Your task to perform on an android device: manage bookmarks in the chrome app Image 0: 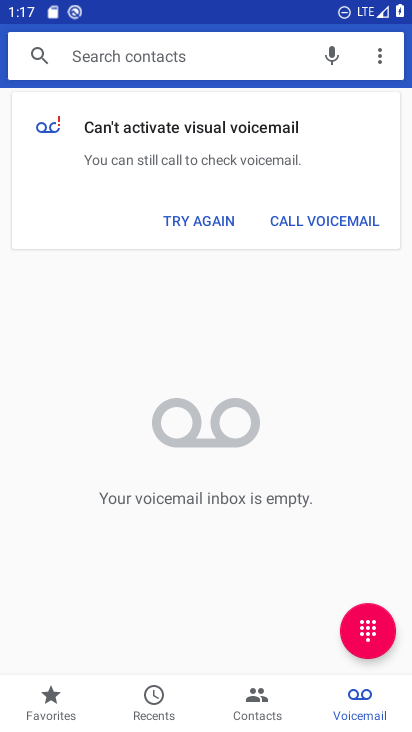
Step 0: press home button
Your task to perform on an android device: manage bookmarks in the chrome app Image 1: 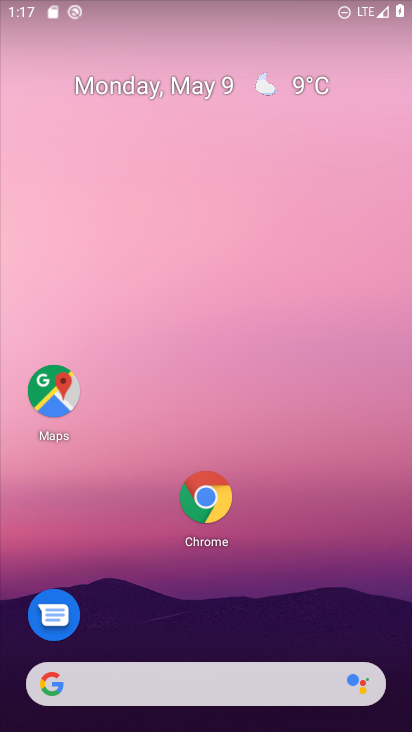
Step 1: click (216, 498)
Your task to perform on an android device: manage bookmarks in the chrome app Image 2: 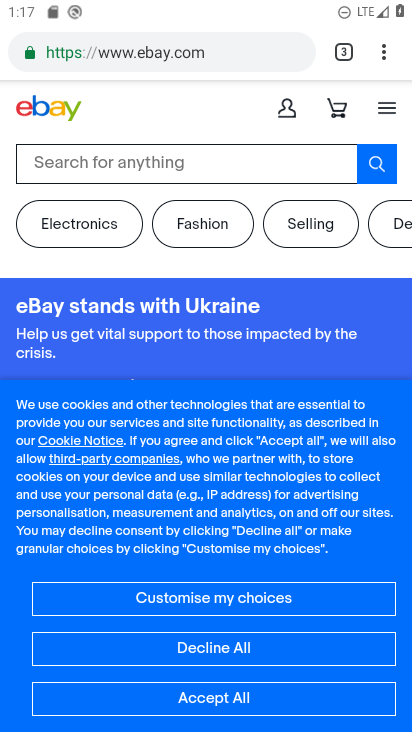
Step 2: drag from (387, 54) to (256, 198)
Your task to perform on an android device: manage bookmarks in the chrome app Image 3: 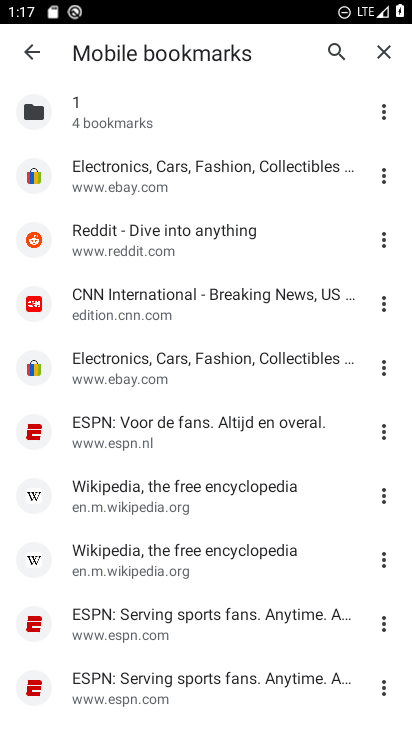
Step 3: click (385, 168)
Your task to perform on an android device: manage bookmarks in the chrome app Image 4: 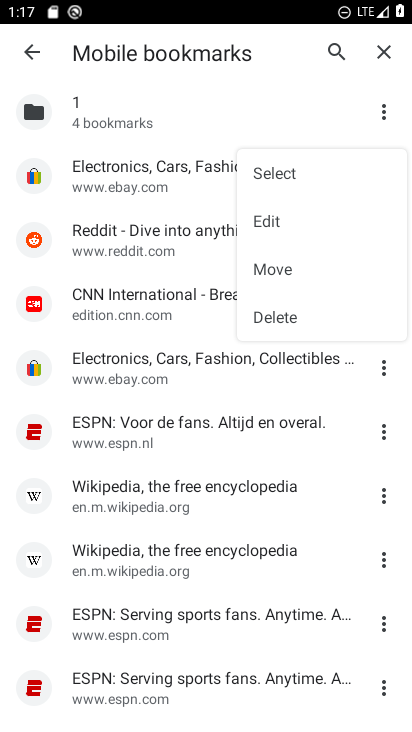
Step 4: click (282, 316)
Your task to perform on an android device: manage bookmarks in the chrome app Image 5: 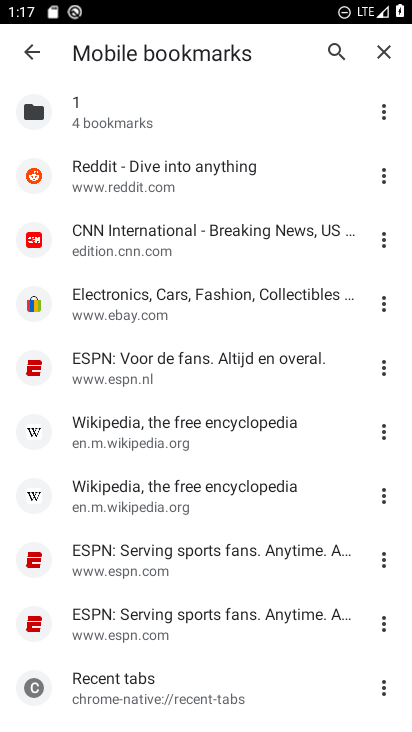
Step 5: task complete